Your task to perform on an android device: Show me the alarms in the clock app Image 0: 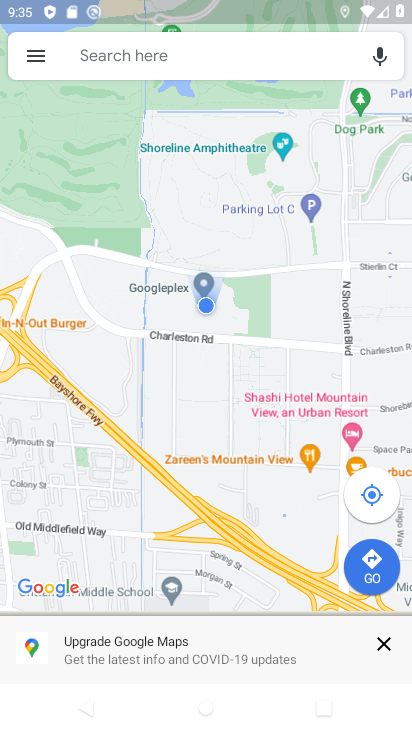
Step 0: press home button
Your task to perform on an android device: Show me the alarms in the clock app Image 1: 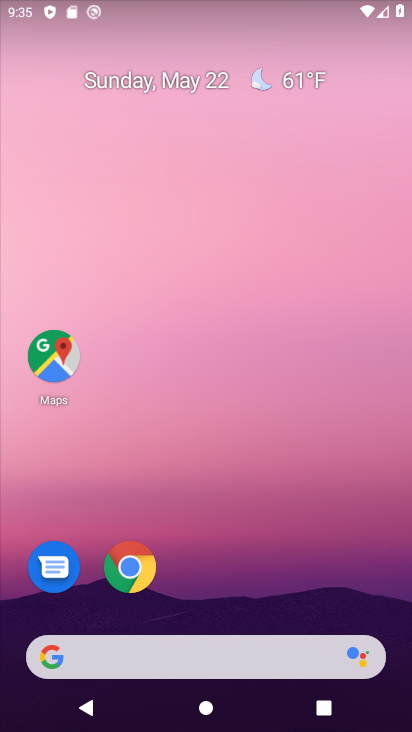
Step 1: drag from (229, 644) to (170, 22)
Your task to perform on an android device: Show me the alarms in the clock app Image 2: 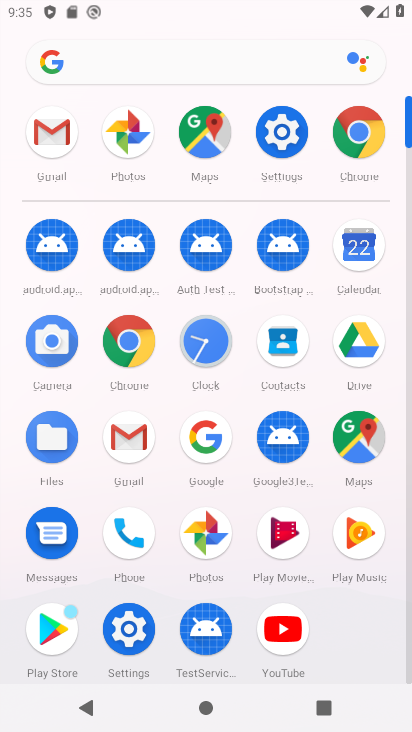
Step 2: click (197, 361)
Your task to perform on an android device: Show me the alarms in the clock app Image 3: 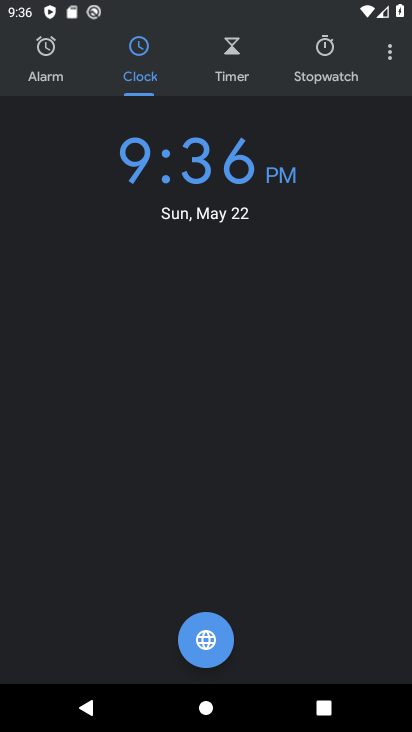
Step 3: click (391, 61)
Your task to perform on an android device: Show me the alarms in the clock app Image 4: 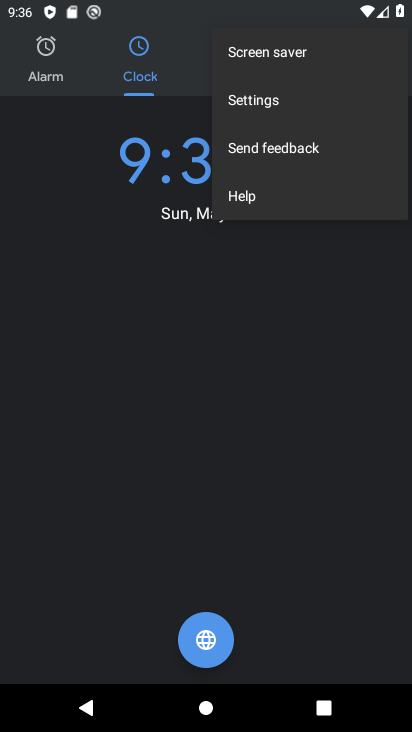
Step 4: click (291, 90)
Your task to perform on an android device: Show me the alarms in the clock app Image 5: 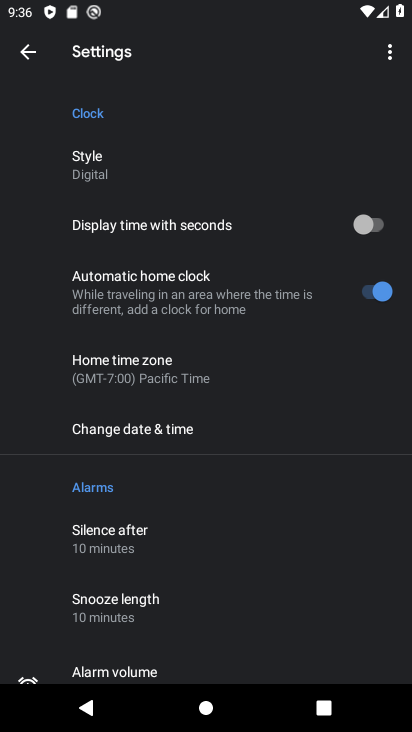
Step 5: click (24, 38)
Your task to perform on an android device: Show me the alarms in the clock app Image 6: 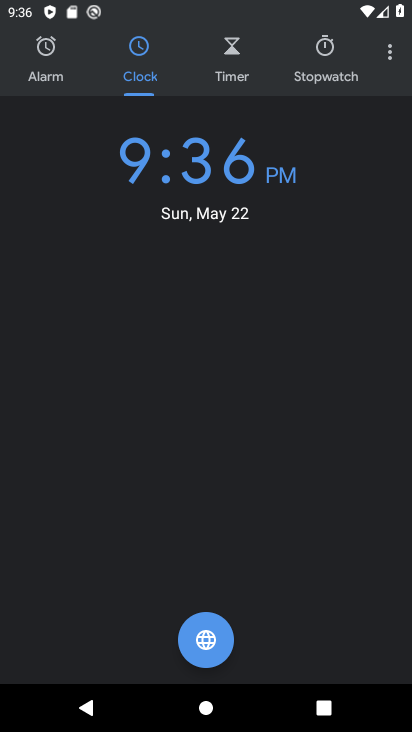
Step 6: click (50, 77)
Your task to perform on an android device: Show me the alarms in the clock app Image 7: 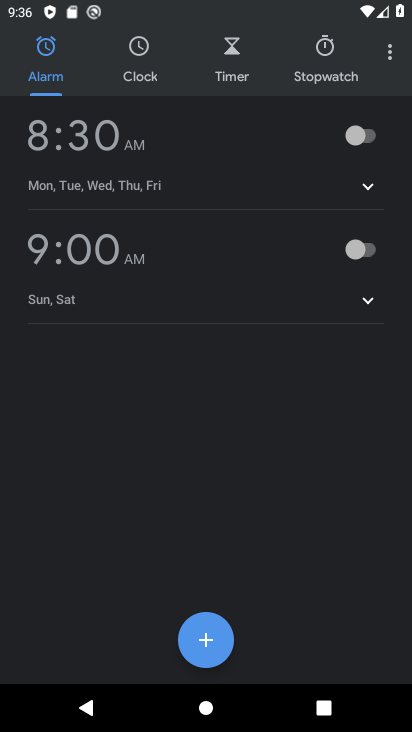
Step 7: task complete